Your task to perform on an android device: add a contact Image 0: 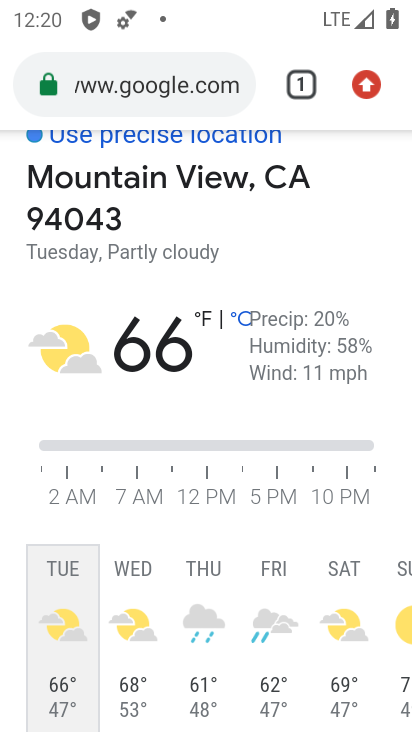
Step 0: press home button
Your task to perform on an android device: add a contact Image 1: 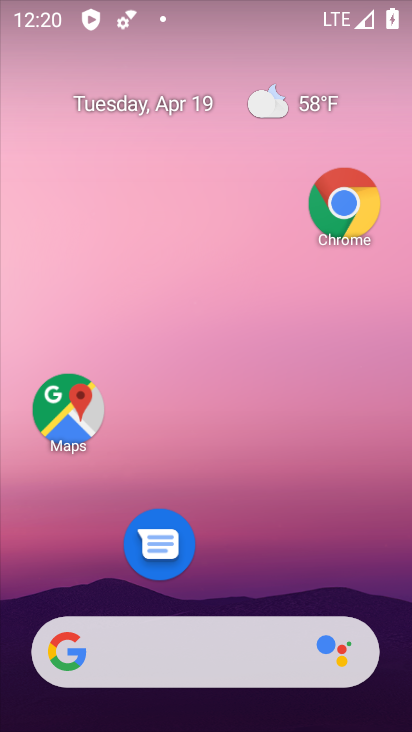
Step 1: drag from (231, 515) to (230, 37)
Your task to perform on an android device: add a contact Image 2: 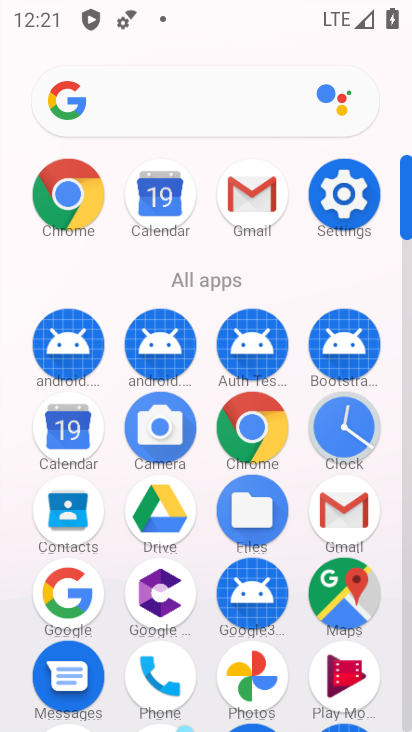
Step 2: click (66, 521)
Your task to perform on an android device: add a contact Image 3: 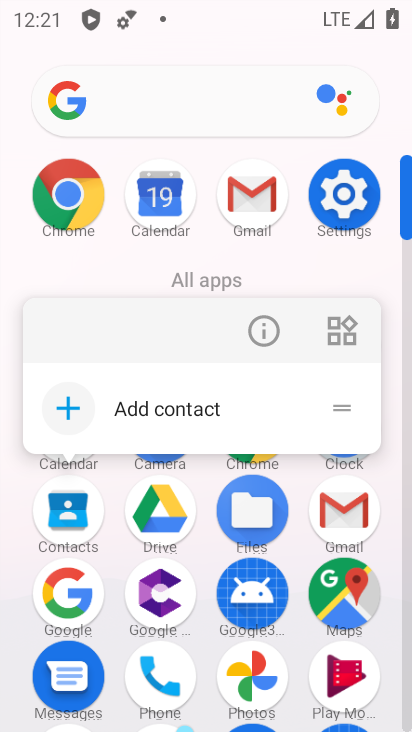
Step 3: click (69, 503)
Your task to perform on an android device: add a contact Image 4: 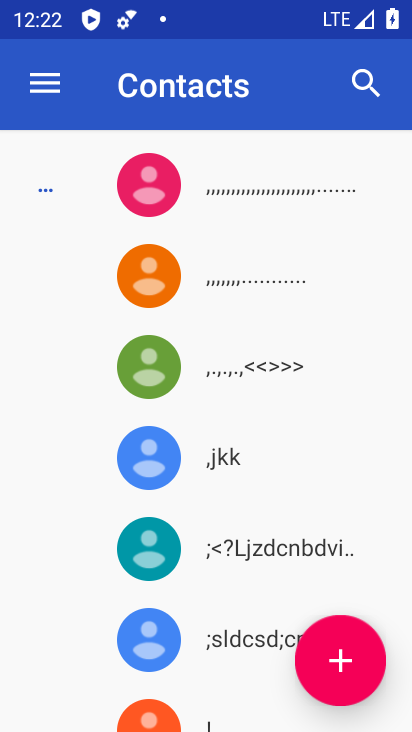
Step 4: click (324, 648)
Your task to perform on an android device: add a contact Image 5: 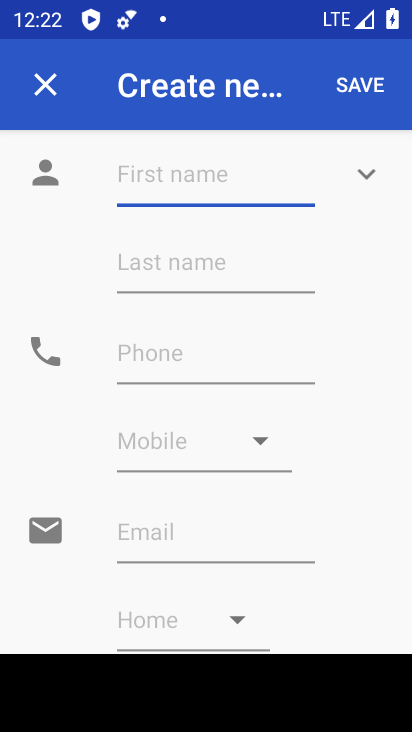
Step 5: click (204, 173)
Your task to perform on an android device: add a contact Image 6: 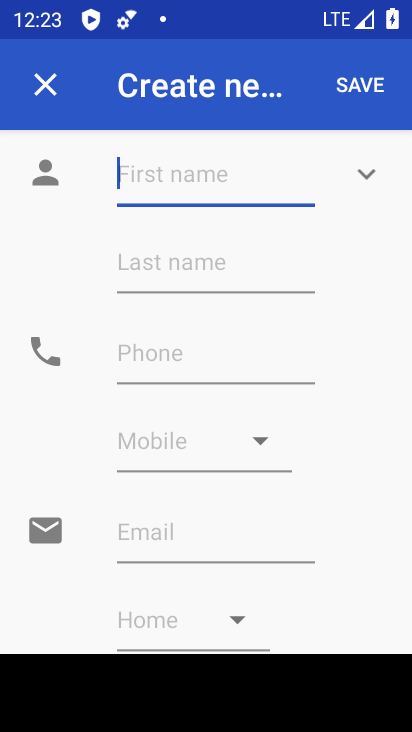
Step 6: type "YRUIHGVB"
Your task to perform on an android device: add a contact Image 7: 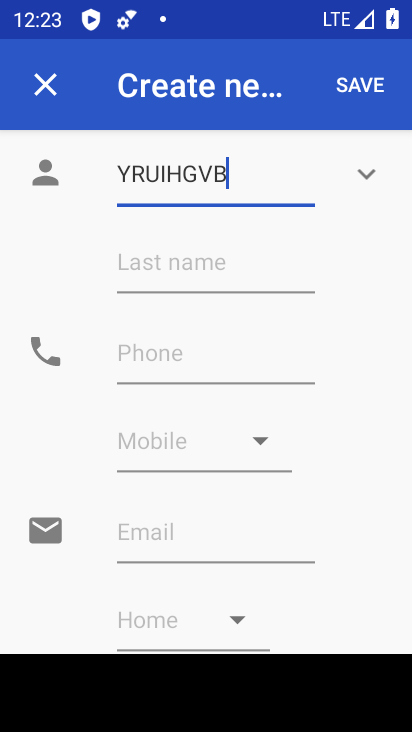
Step 7: click (202, 363)
Your task to perform on an android device: add a contact Image 8: 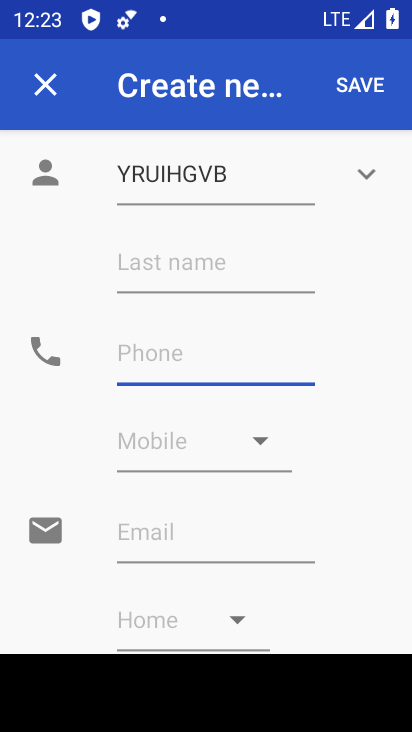
Step 8: type "8778345678"
Your task to perform on an android device: add a contact Image 9: 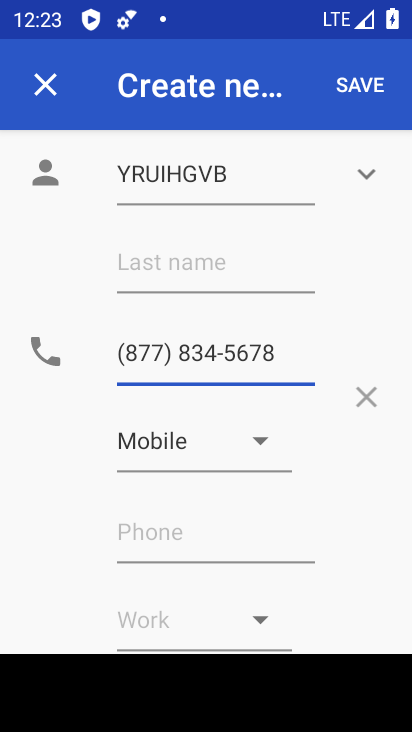
Step 9: click (353, 85)
Your task to perform on an android device: add a contact Image 10: 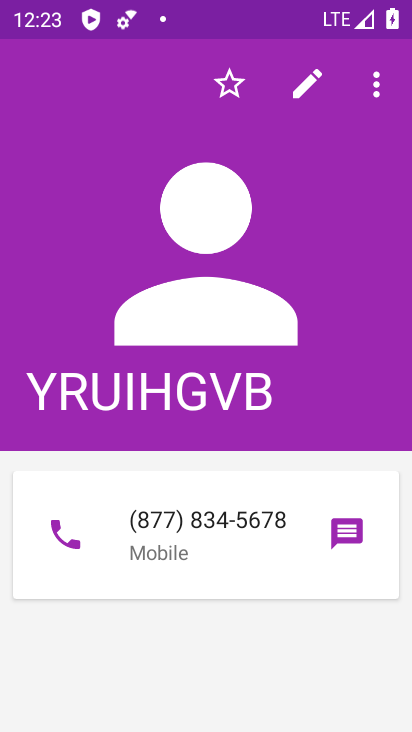
Step 10: task complete